Your task to perform on an android device: change keyboard looks Image 0: 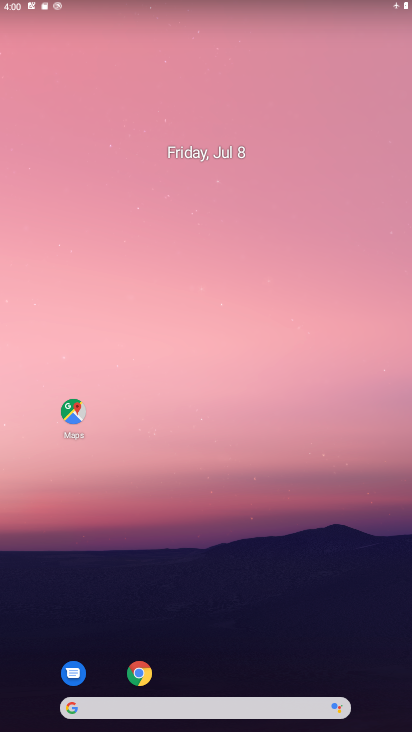
Step 0: drag from (264, 681) to (262, 3)
Your task to perform on an android device: change keyboard looks Image 1: 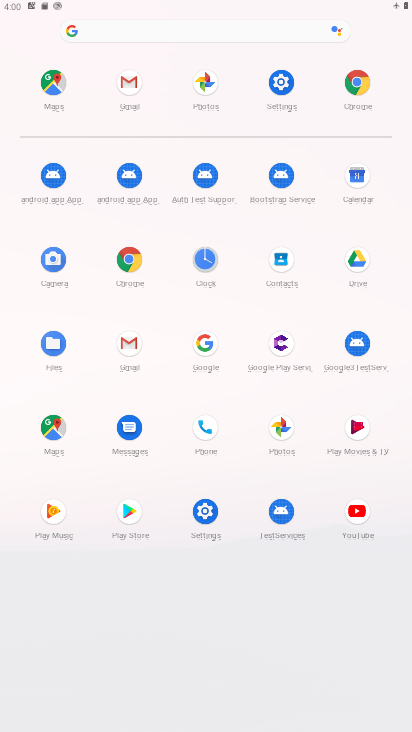
Step 1: click (272, 93)
Your task to perform on an android device: change keyboard looks Image 2: 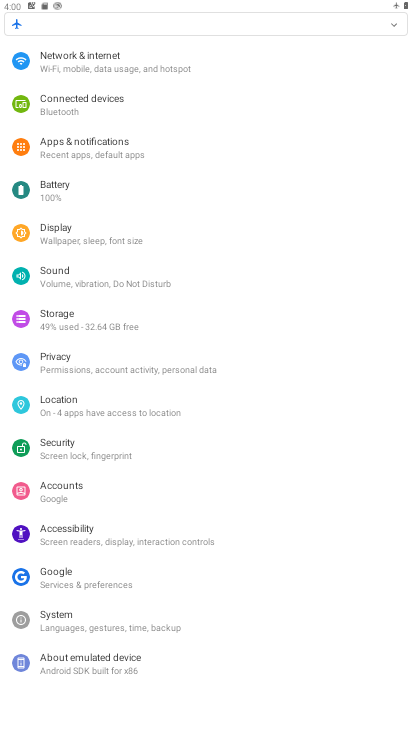
Step 2: click (60, 628)
Your task to perform on an android device: change keyboard looks Image 3: 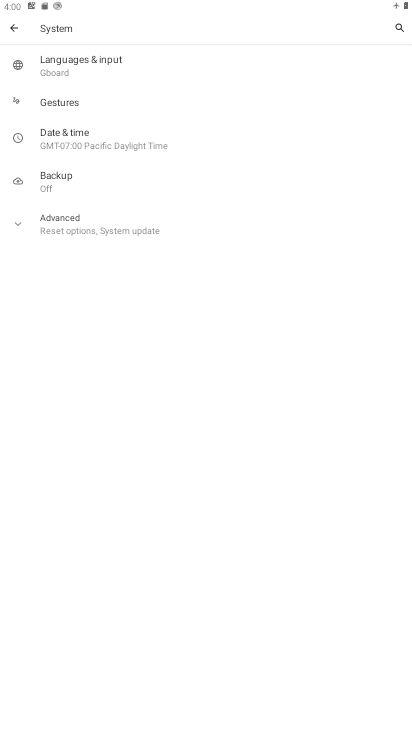
Step 3: click (29, 62)
Your task to perform on an android device: change keyboard looks Image 4: 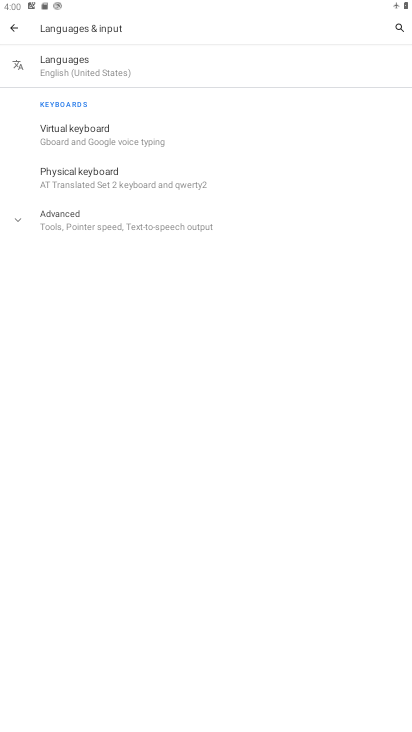
Step 4: click (57, 134)
Your task to perform on an android device: change keyboard looks Image 5: 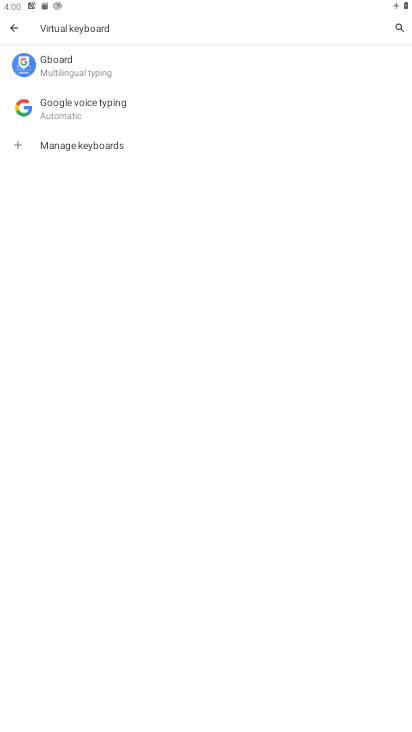
Step 5: click (66, 66)
Your task to perform on an android device: change keyboard looks Image 6: 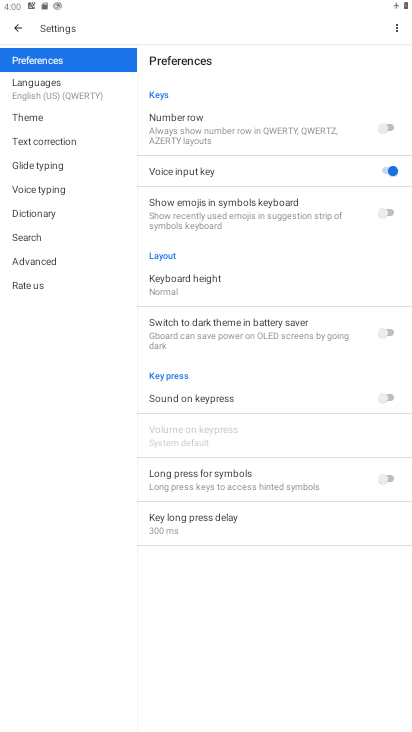
Step 6: click (19, 122)
Your task to perform on an android device: change keyboard looks Image 7: 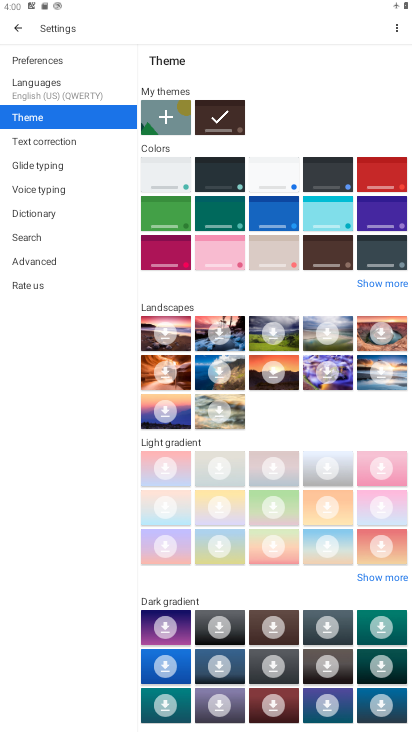
Step 7: click (237, 254)
Your task to perform on an android device: change keyboard looks Image 8: 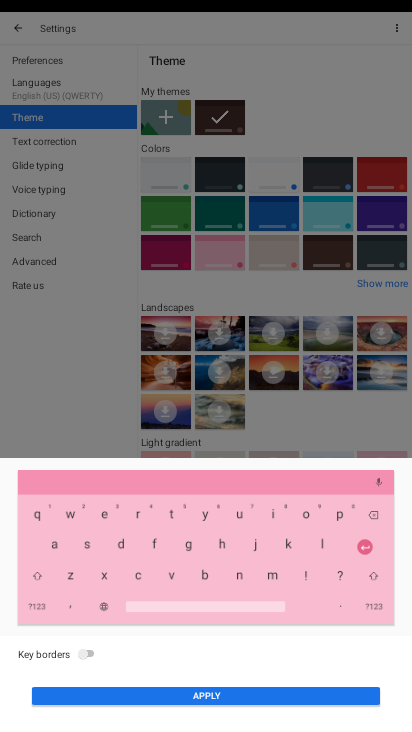
Step 8: click (218, 699)
Your task to perform on an android device: change keyboard looks Image 9: 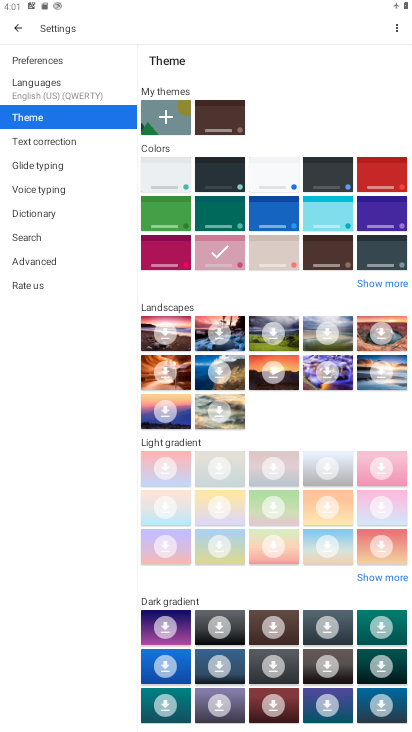
Step 9: task complete